Your task to perform on an android device: What's on my calendar today? Image 0: 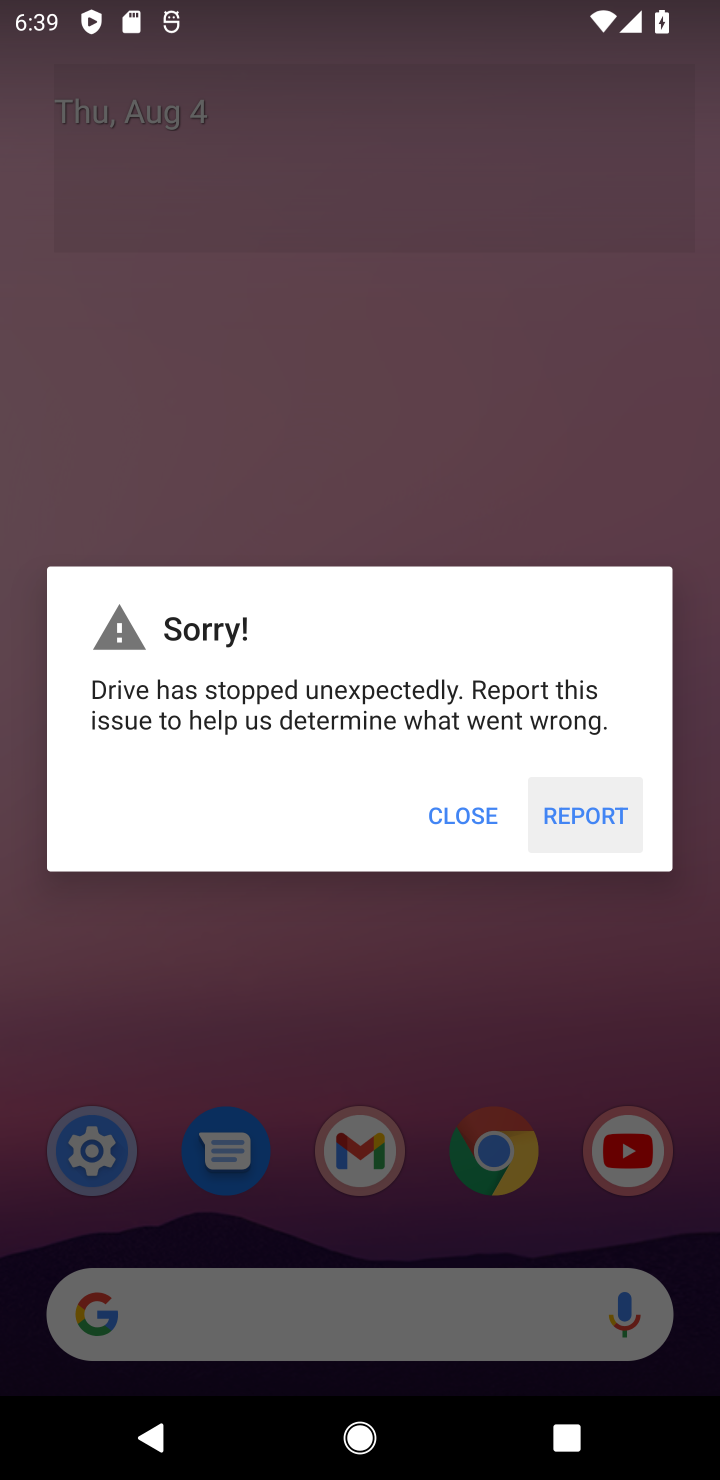
Step 0: click (427, 812)
Your task to perform on an android device: What's on my calendar today? Image 1: 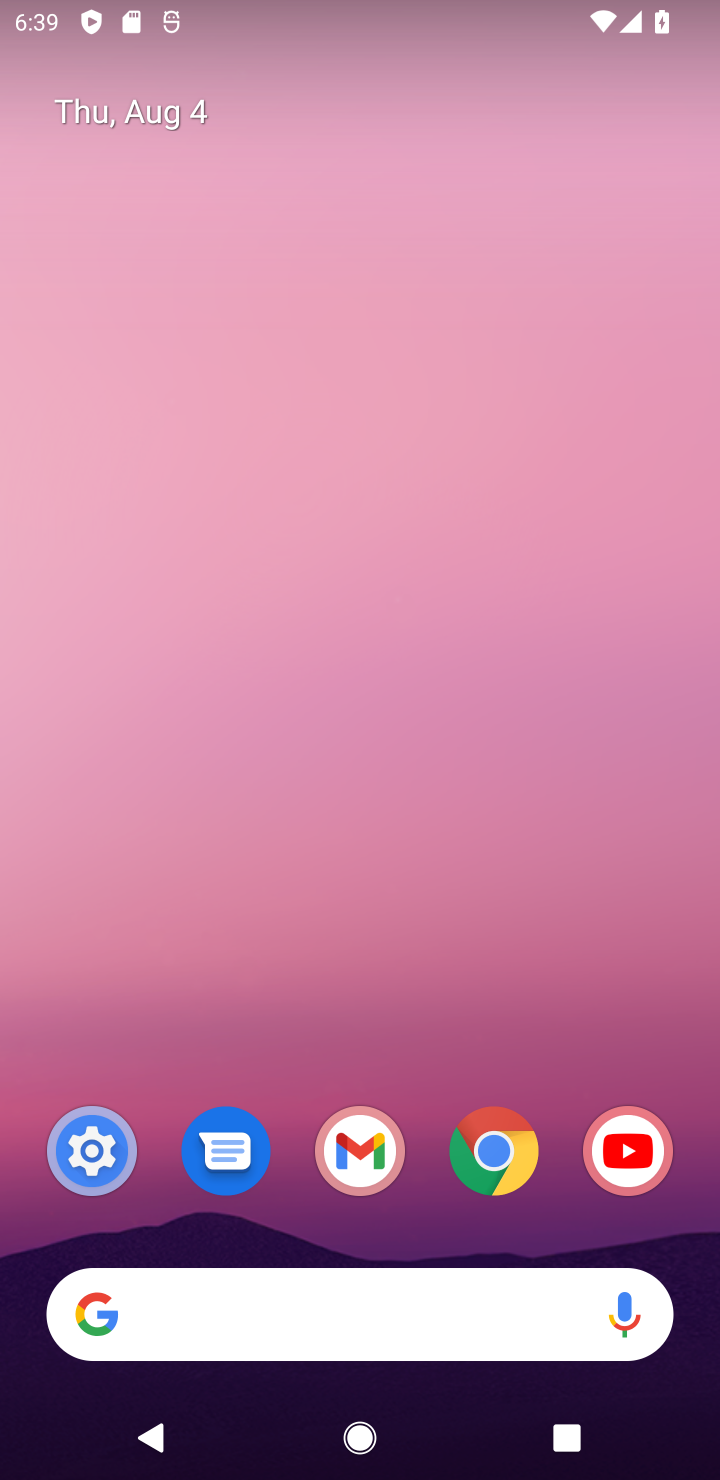
Step 1: drag from (394, 1078) to (559, 2)
Your task to perform on an android device: What's on my calendar today? Image 2: 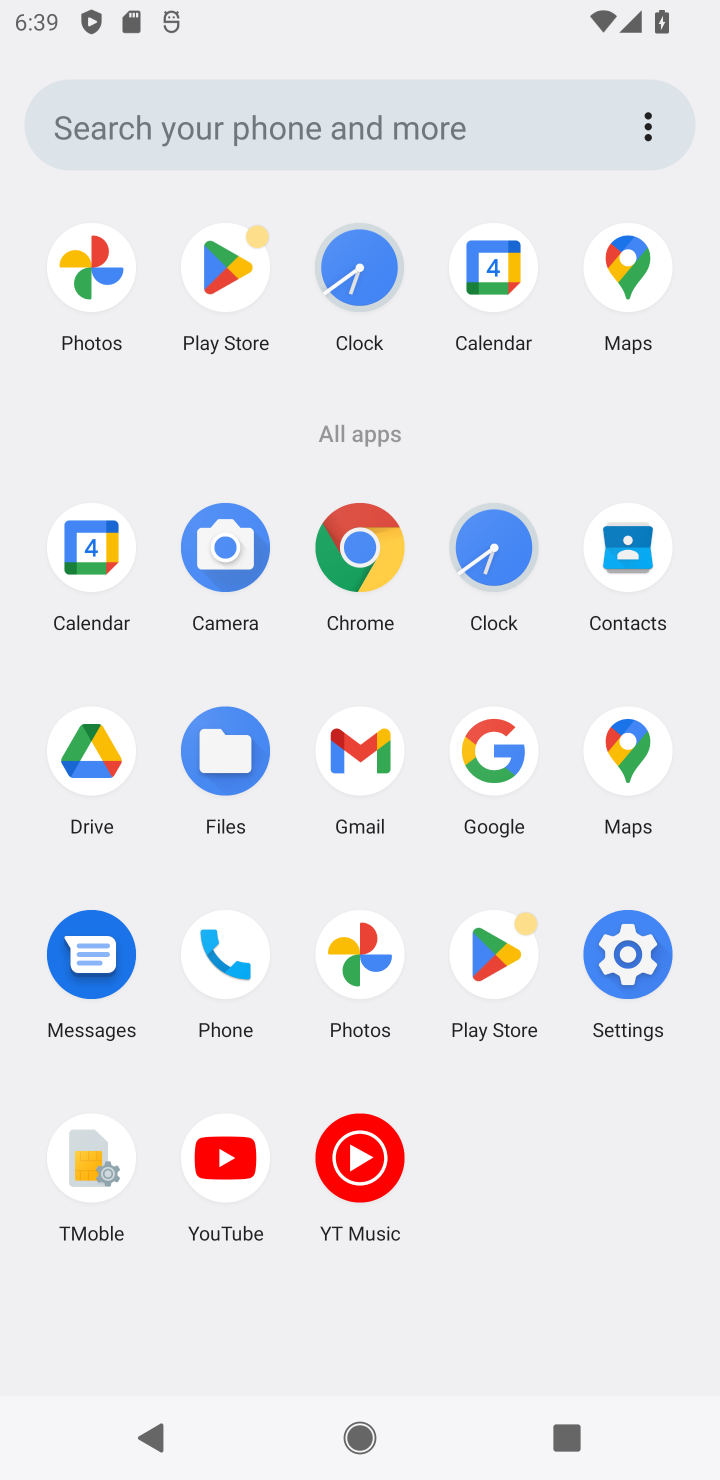
Step 2: click (84, 574)
Your task to perform on an android device: What's on my calendar today? Image 3: 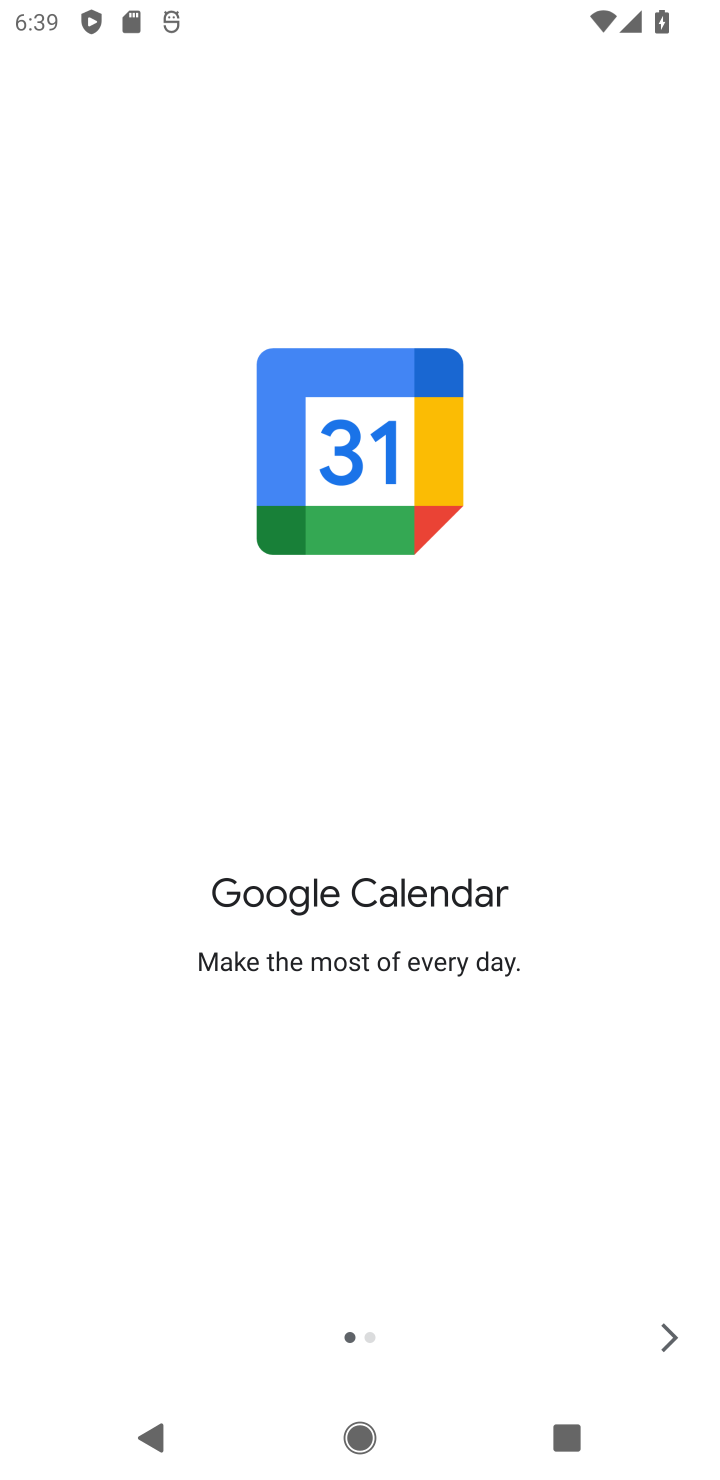
Step 3: click (679, 1321)
Your task to perform on an android device: What's on my calendar today? Image 4: 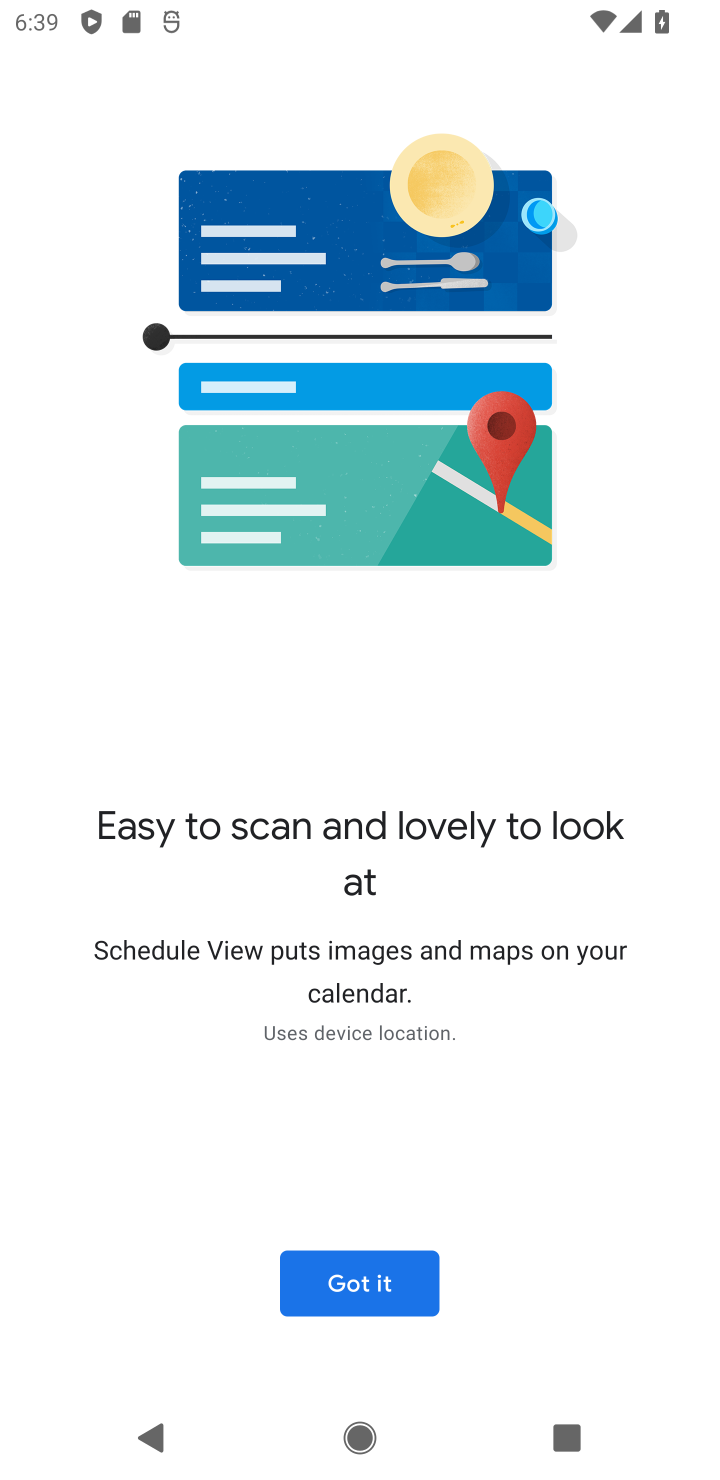
Step 4: click (382, 1257)
Your task to perform on an android device: What's on my calendar today? Image 5: 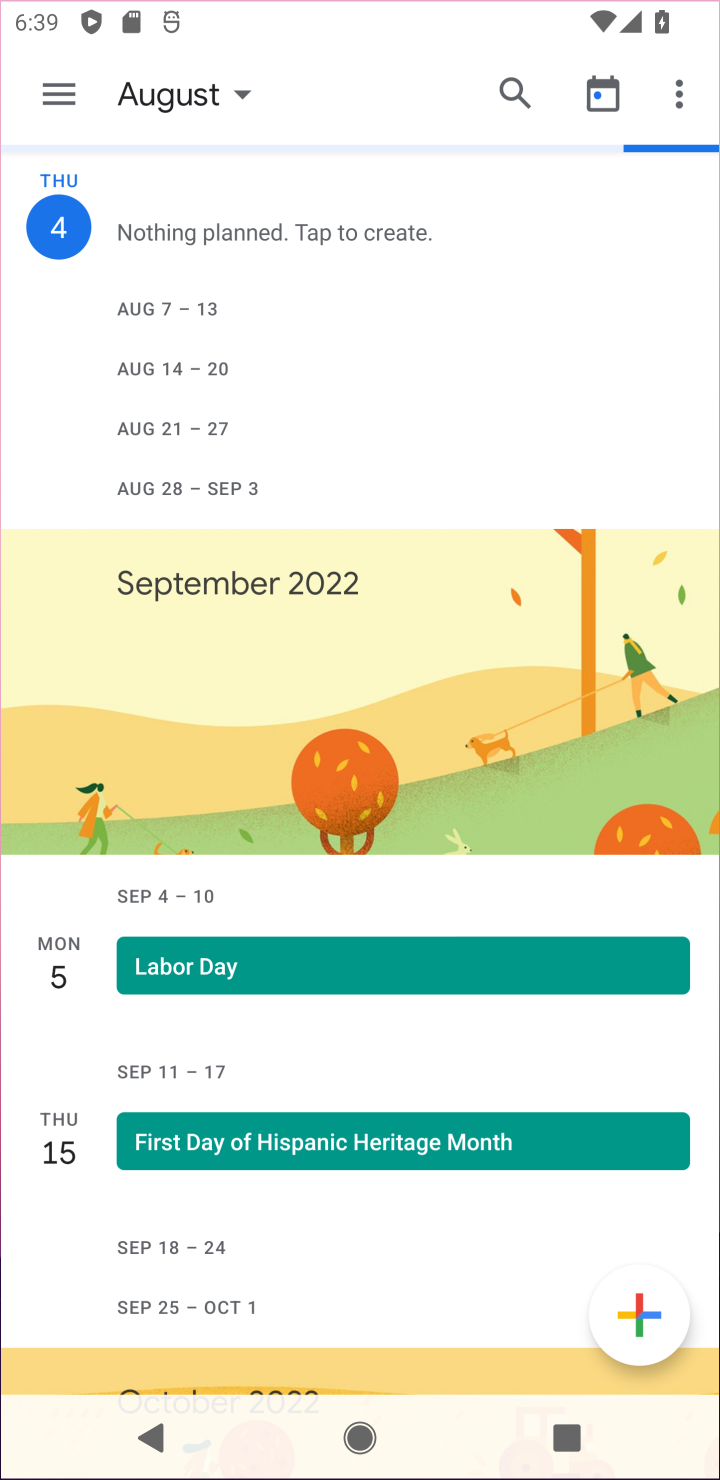
Step 5: click (388, 1280)
Your task to perform on an android device: What's on my calendar today? Image 6: 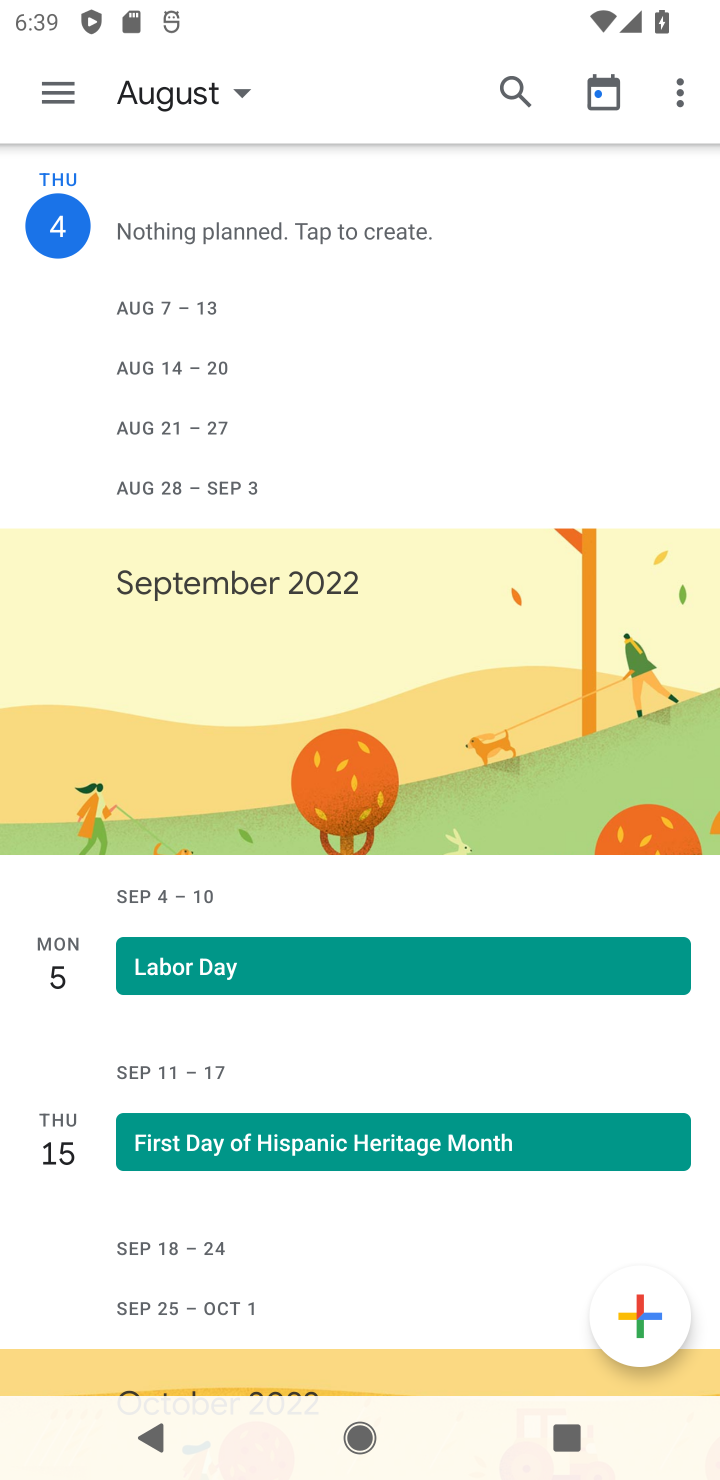
Step 6: click (40, 118)
Your task to perform on an android device: What's on my calendar today? Image 7: 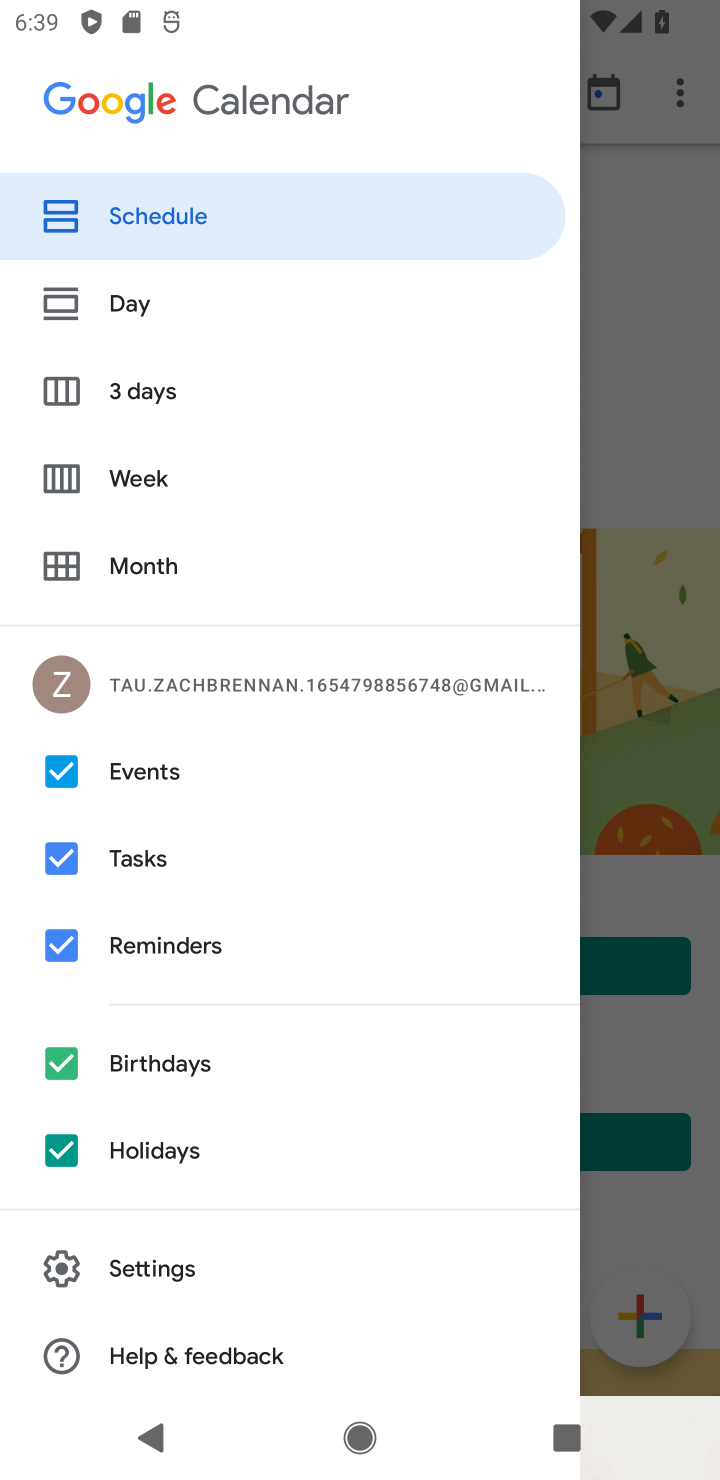
Step 7: click (159, 301)
Your task to perform on an android device: What's on my calendar today? Image 8: 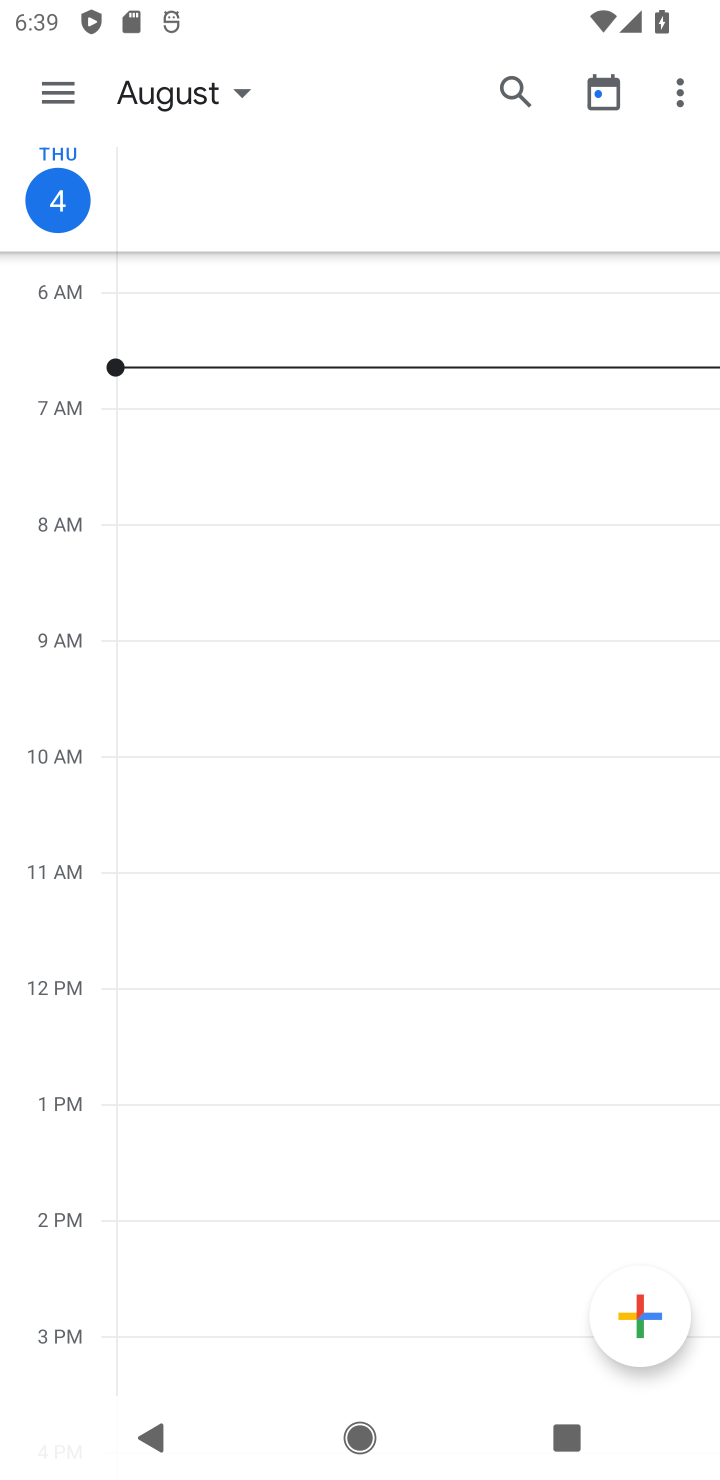
Step 8: task complete